Your task to perform on an android device: Go to wifi settings Image 0: 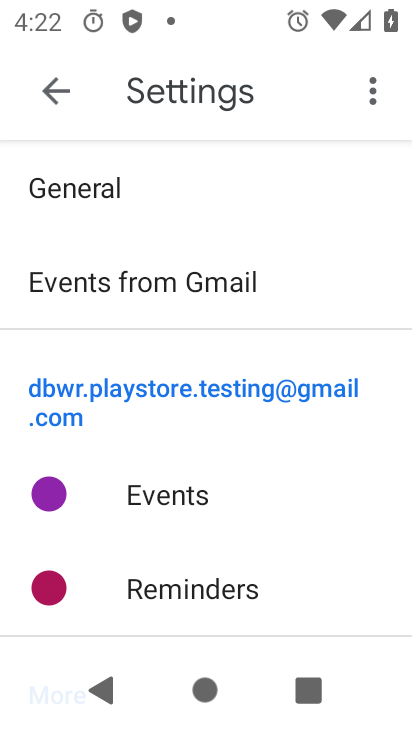
Step 0: press home button
Your task to perform on an android device: Go to wifi settings Image 1: 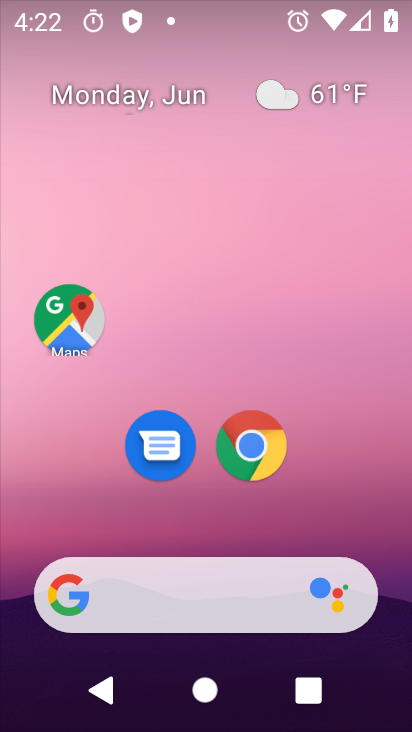
Step 1: drag from (222, 534) to (215, 131)
Your task to perform on an android device: Go to wifi settings Image 2: 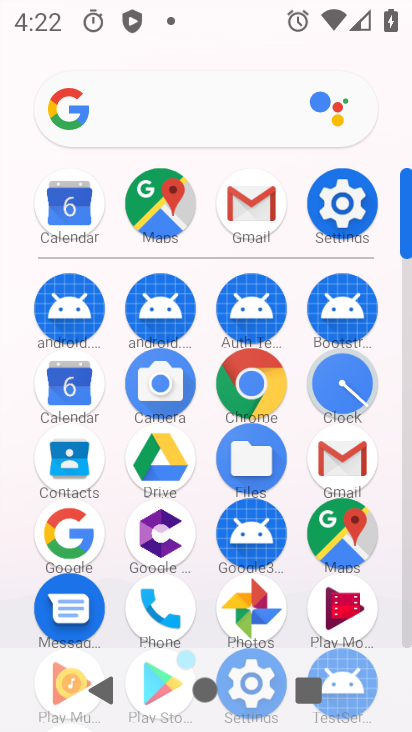
Step 2: click (330, 217)
Your task to perform on an android device: Go to wifi settings Image 3: 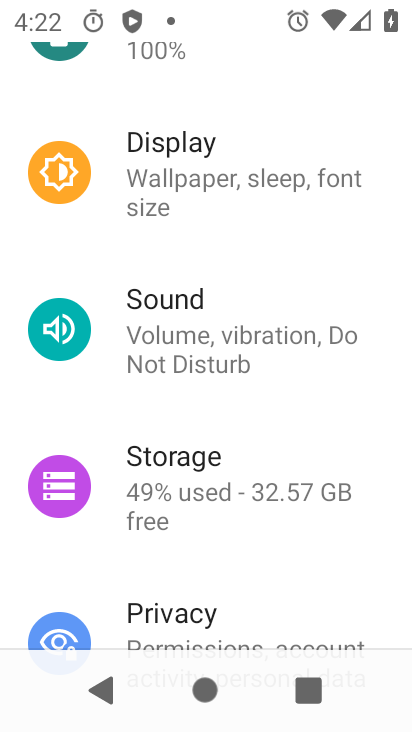
Step 3: drag from (183, 166) to (9, 631)
Your task to perform on an android device: Go to wifi settings Image 4: 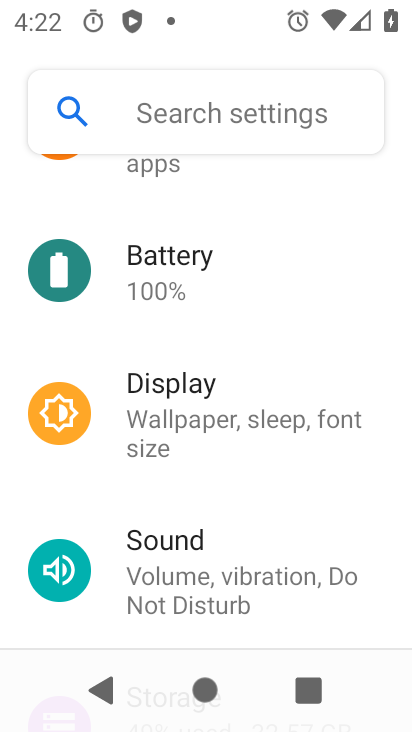
Step 4: drag from (218, 305) to (216, 525)
Your task to perform on an android device: Go to wifi settings Image 5: 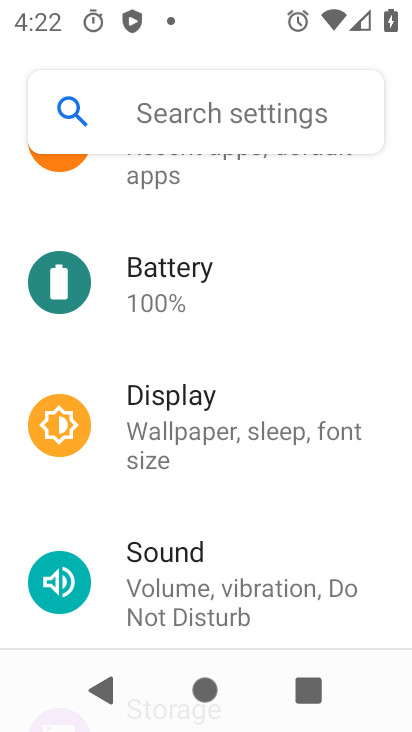
Step 5: drag from (199, 285) to (200, 573)
Your task to perform on an android device: Go to wifi settings Image 6: 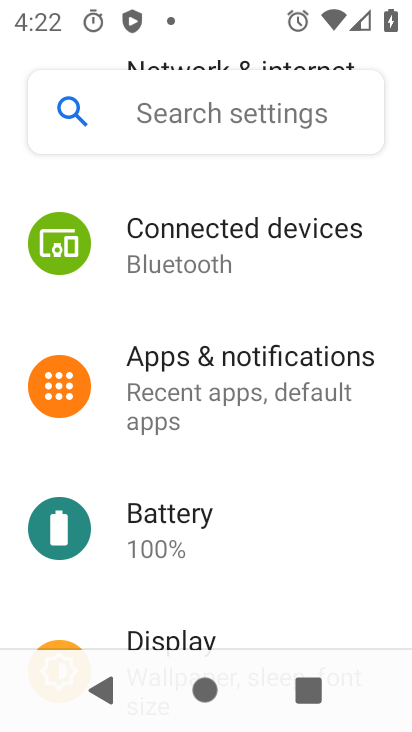
Step 6: drag from (202, 316) to (179, 593)
Your task to perform on an android device: Go to wifi settings Image 7: 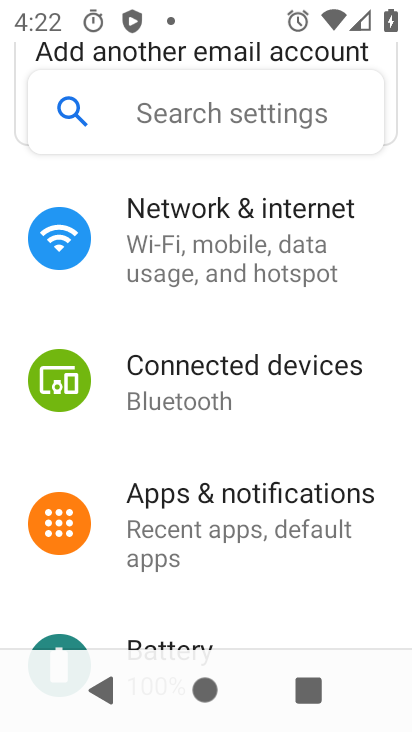
Step 7: click (174, 244)
Your task to perform on an android device: Go to wifi settings Image 8: 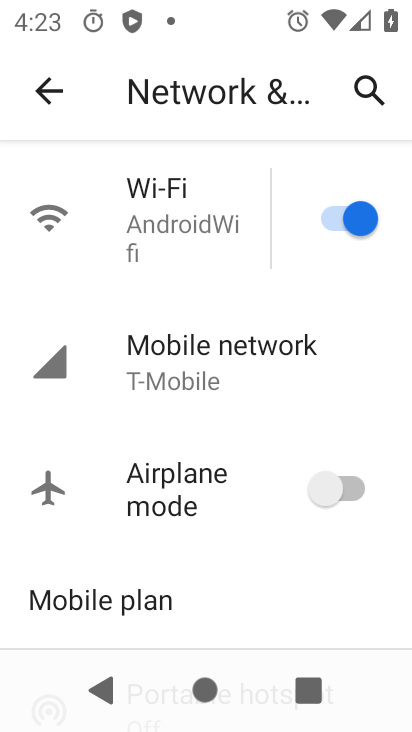
Step 8: drag from (198, 593) to (225, 349)
Your task to perform on an android device: Go to wifi settings Image 9: 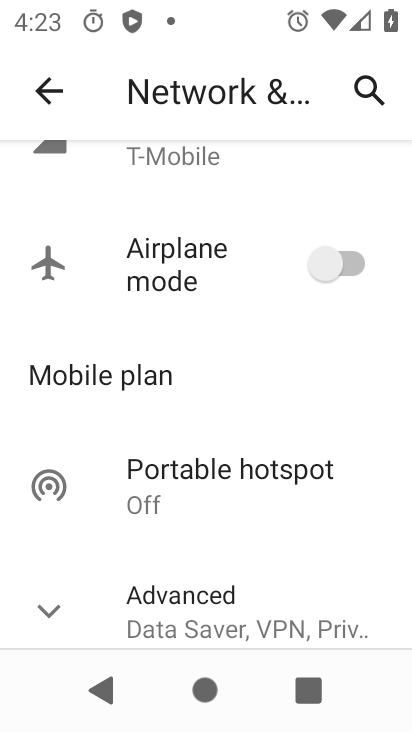
Step 9: drag from (246, 215) to (216, 519)
Your task to perform on an android device: Go to wifi settings Image 10: 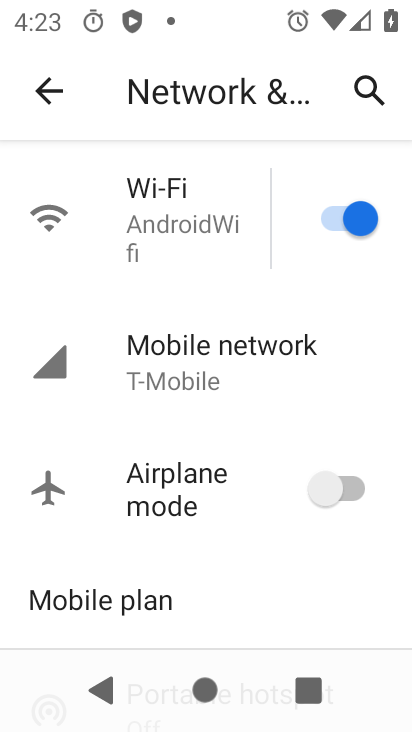
Step 10: click (167, 240)
Your task to perform on an android device: Go to wifi settings Image 11: 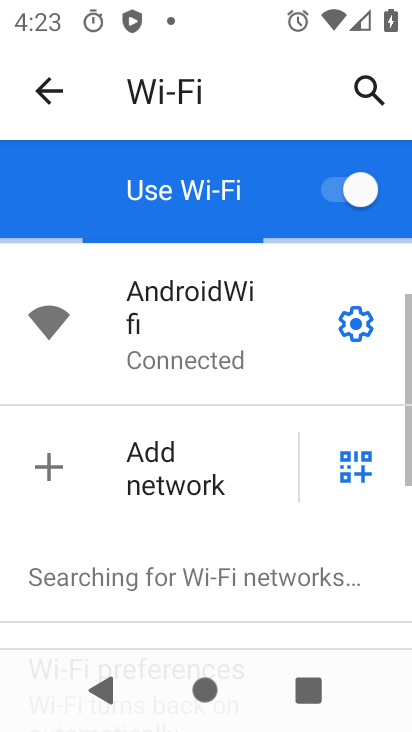
Step 11: task complete